Your task to perform on an android device: Open accessibility settings Image 0: 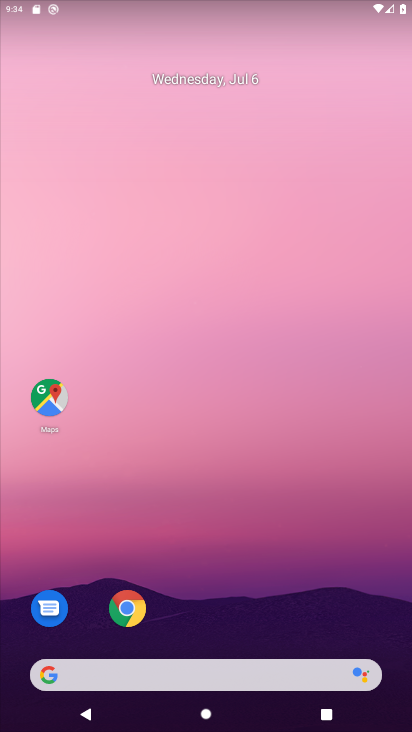
Step 0: drag from (276, 6) to (185, 539)
Your task to perform on an android device: Open accessibility settings Image 1: 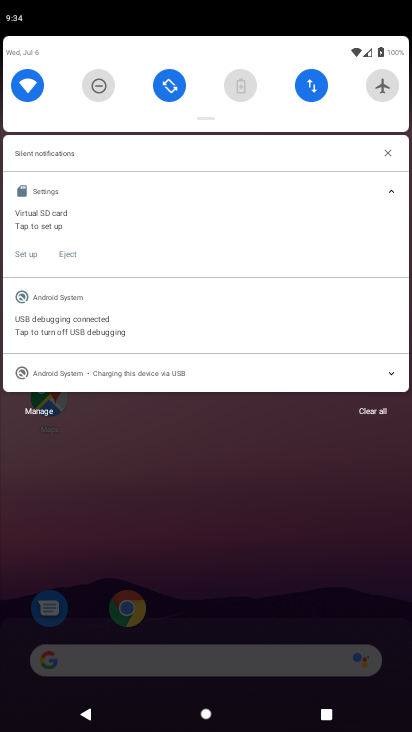
Step 1: drag from (217, 67) to (214, 559)
Your task to perform on an android device: Open accessibility settings Image 2: 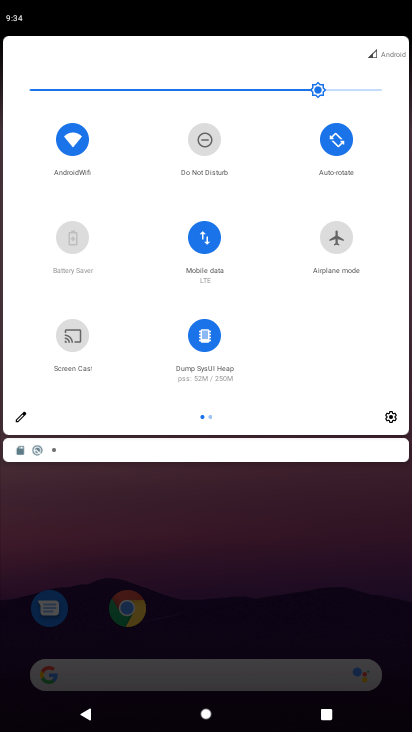
Step 2: click (389, 419)
Your task to perform on an android device: Open accessibility settings Image 3: 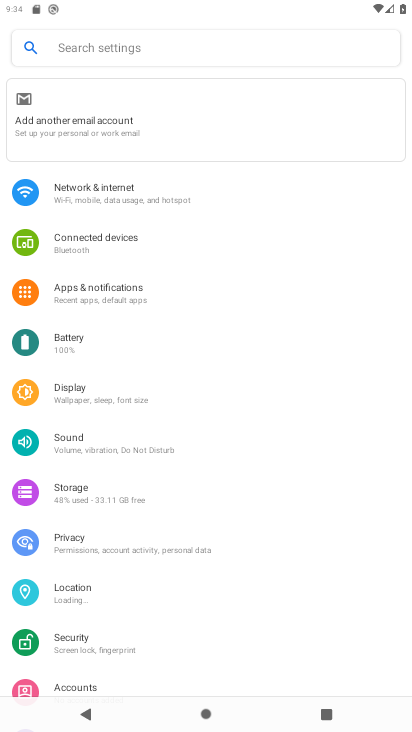
Step 3: drag from (126, 673) to (201, 142)
Your task to perform on an android device: Open accessibility settings Image 4: 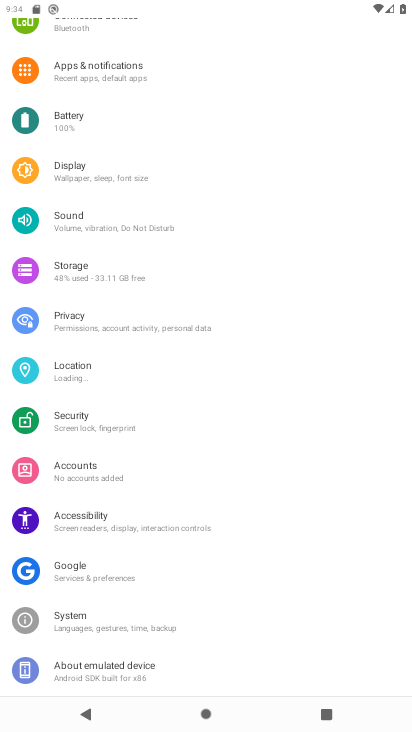
Step 4: click (143, 521)
Your task to perform on an android device: Open accessibility settings Image 5: 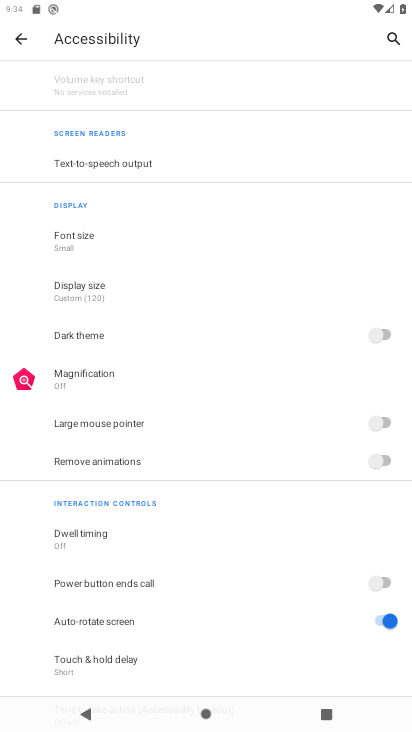
Step 5: task complete